Your task to perform on an android device: Open calendar and show me the first week of next month Image 0: 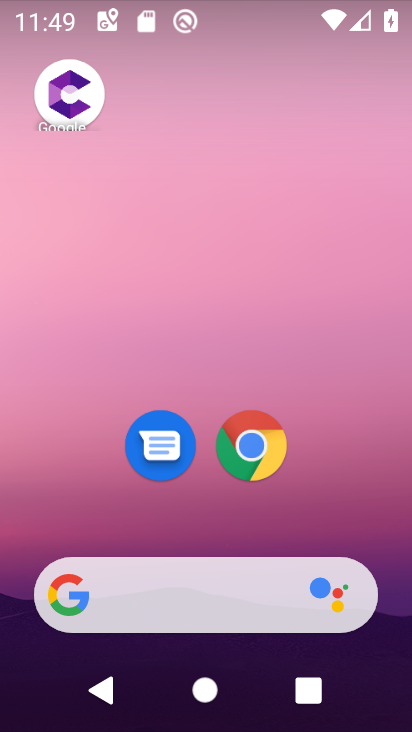
Step 0: drag from (326, 504) to (212, 23)
Your task to perform on an android device: Open calendar and show me the first week of next month Image 1: 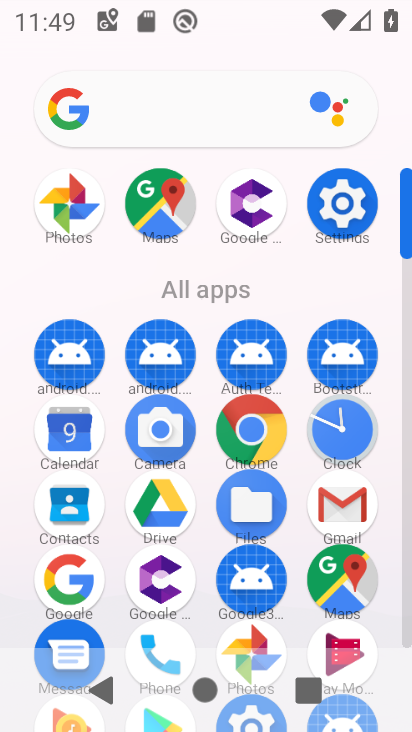
Step 1: click (76, 418)
Your task to perform on an android device: Open calendar and show me the first week of next month Image 2: 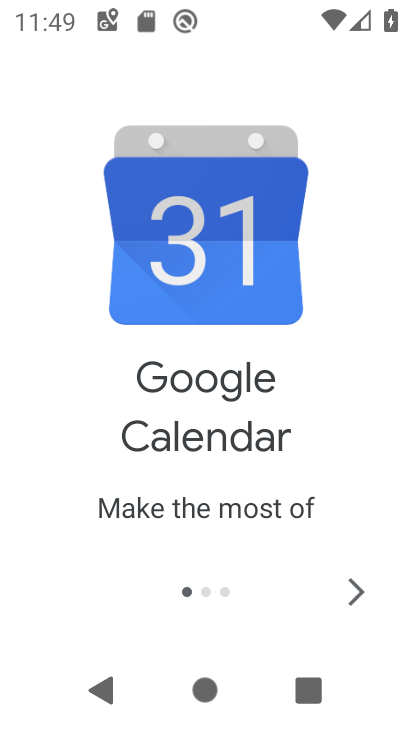
Step 2: click (358, 591)
Your task to perform on an android device: Open calendar and show me the first week of next month Image 3: 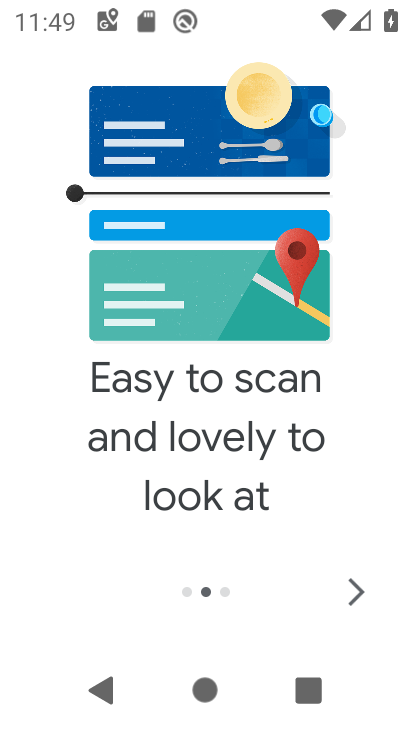
Step 3: click (358, 591)
Your task to perform on an android device: Open calendar and show me the first week of next month Image 4: 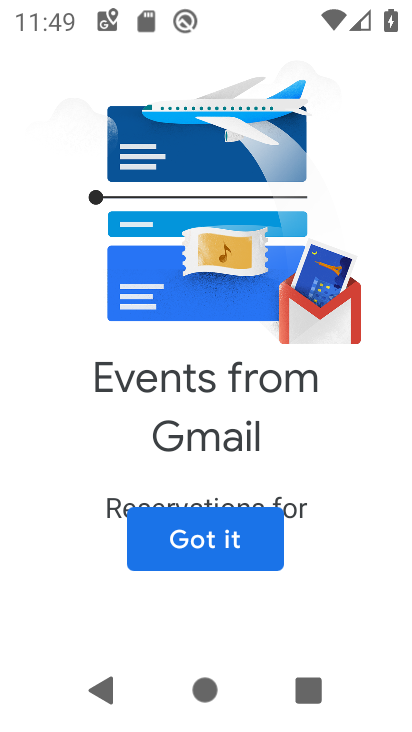
Step 4: click (189, 539)
Your task to perform on an android device: Open calendar and show me the first week of next month Image 5: 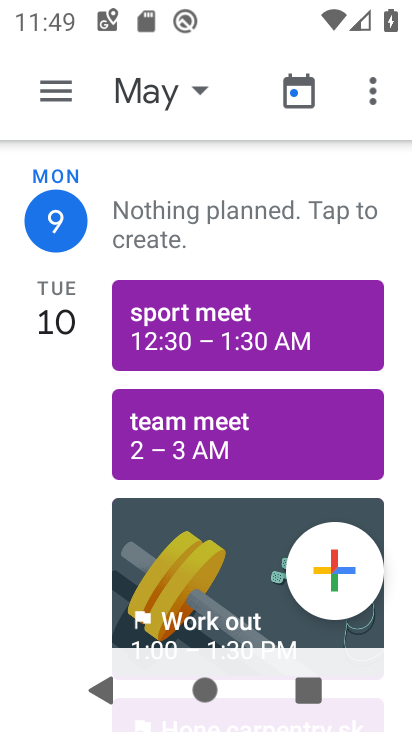
Step 5: click (200, 86)
Your task to perform on an android device: Open calendar and show me the first week of next month Image 6: 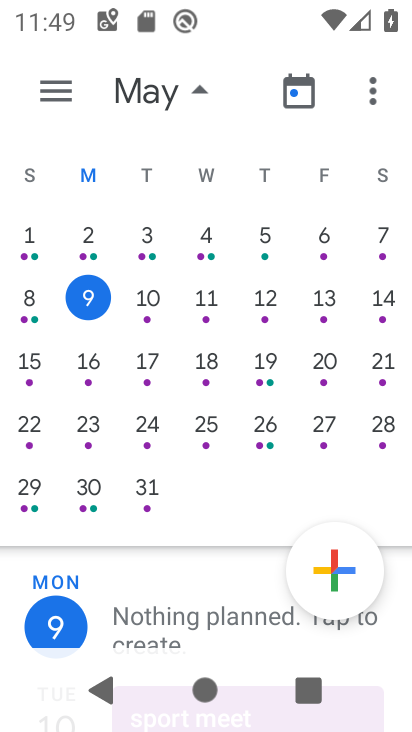
Step 6: drag from (338, 315) to (3, 369)
Your task to perform on an android device: Open calendar and show me the first week of next month Image 7: 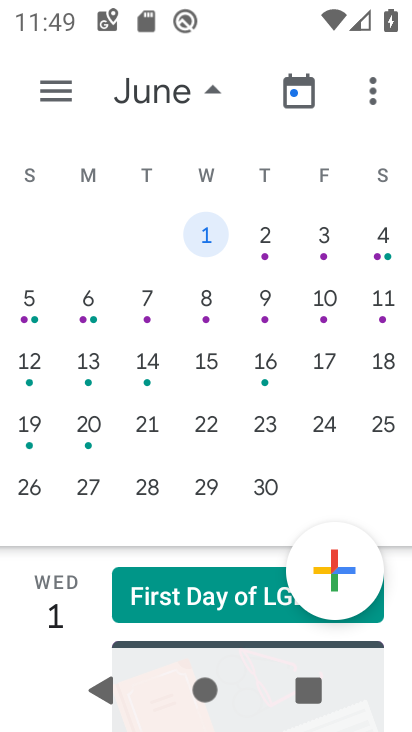
Step 7: click (49, 86)
Your task to perform on an android device: Open calendar and show me the first week of next month Image 8: 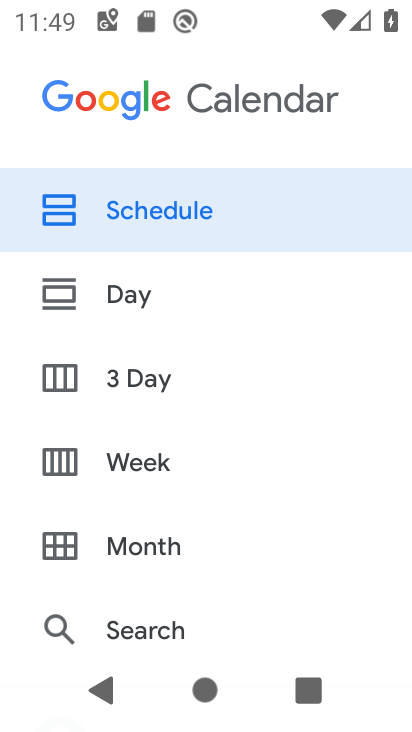
Step 8: click (144, 456)
Your task to perform on an android device: Open calendar and show me the first week of next month Image 9: 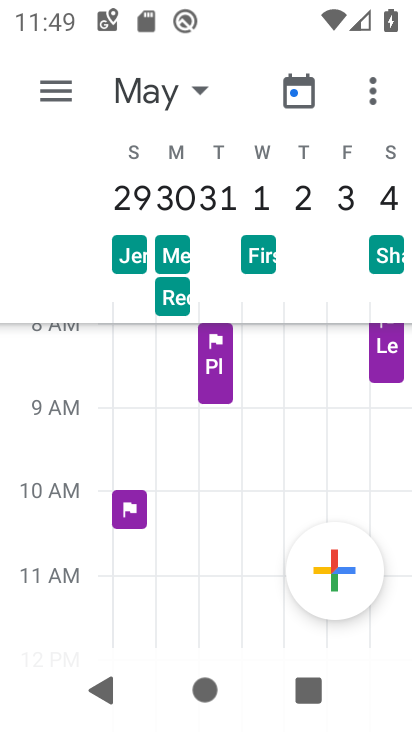
Step 9: click (205, 86)
Your task to perform on an android device: Open calendar and show me the first week of next month Image 10: 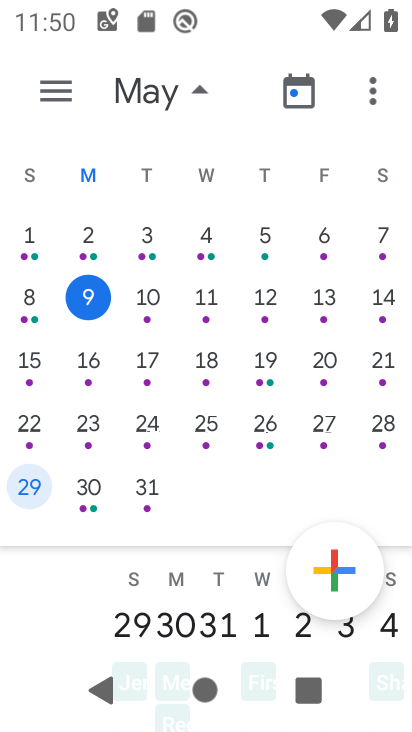
Step 10: task complete